Your task to perform on an android device: Open internet settings Image 0: 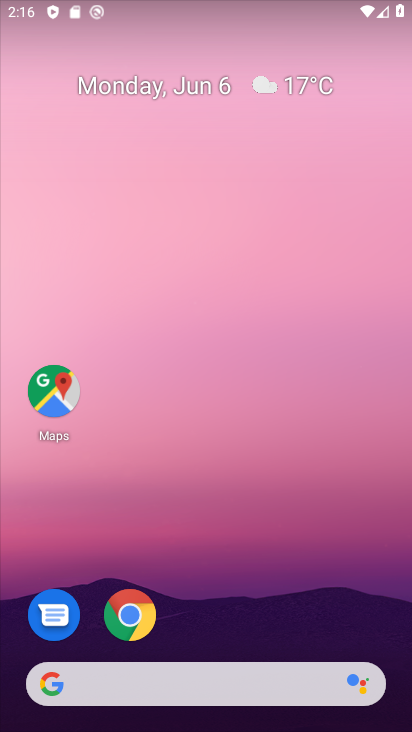
Step 0: drag from (210, 639) to (299, 22)
Your task to perform on an android device: Open internet settings Image 1: 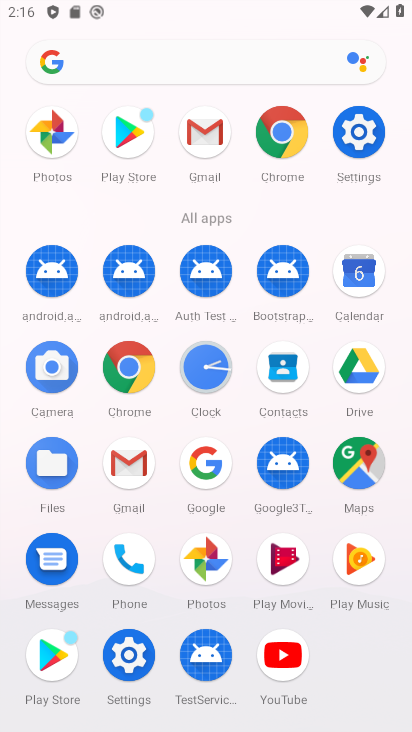
Step 1: click (373, 122)
Your task to perform on an android device: Open internet settings Image 2: 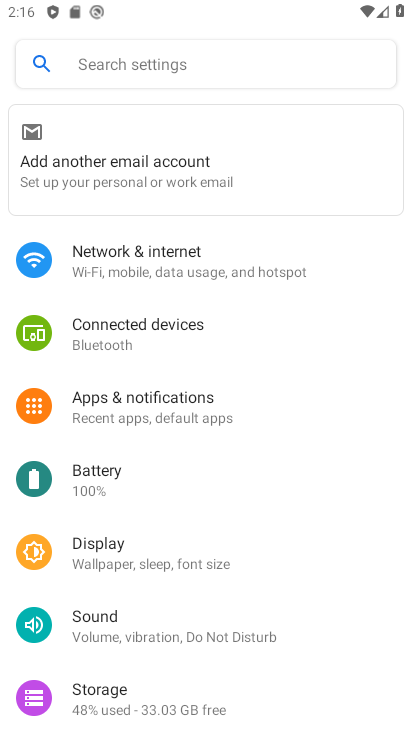
Step 2: click (168, 274)
Your task to perform on an android device: Open internet settings Image 3: 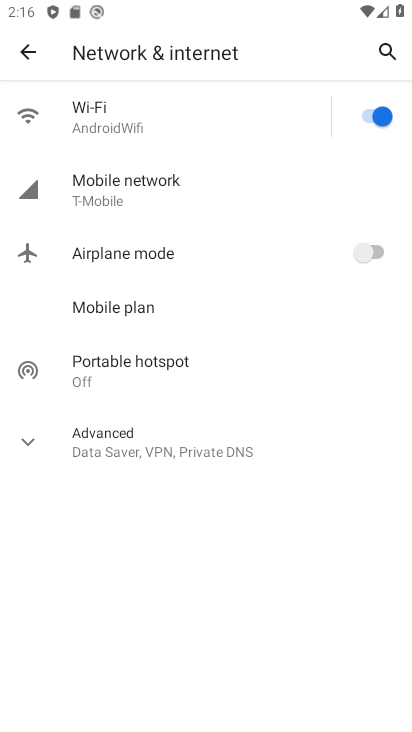
Step 3: task complete